Your task to perform on an android device: Open sound settings Image 0: 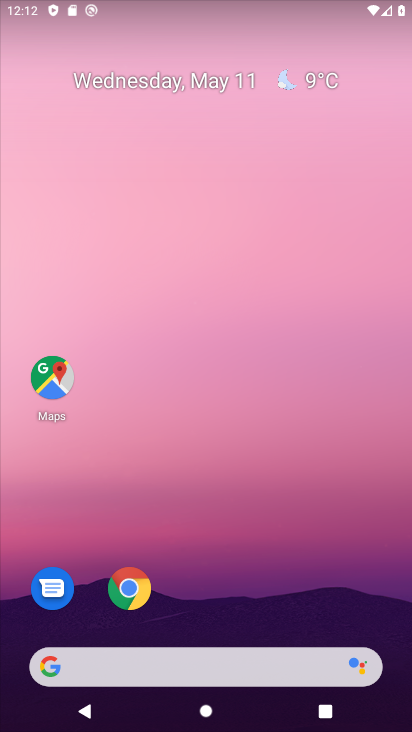
Step 0: drag from (363, 342) to (362, 9)
Your task to perform on an android device: Open sound settings Image 1: 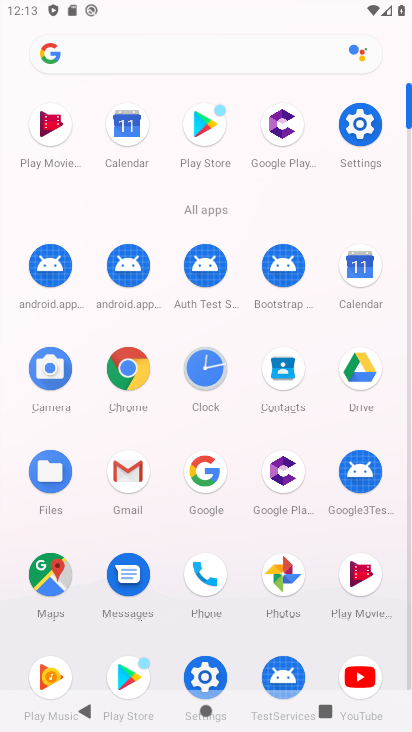
Step 1: click (361, 133)
Your task to perform on an android device: Open sound settings Image 2: 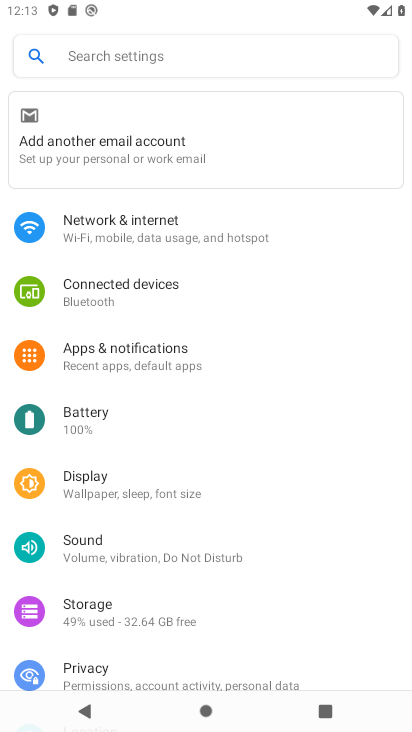
Step 2: click (92, 558)
Your task to perform on an android device: Open sound settings Image 3: 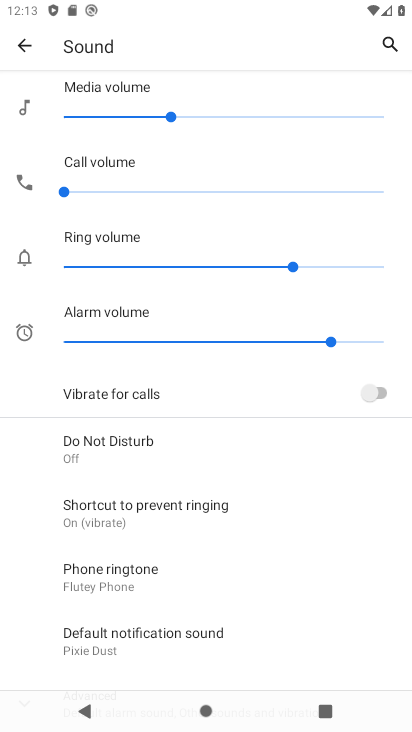
Step 3: task complete